Your task to perform on an android device: Is it going to rain tomorrow? Image 0: 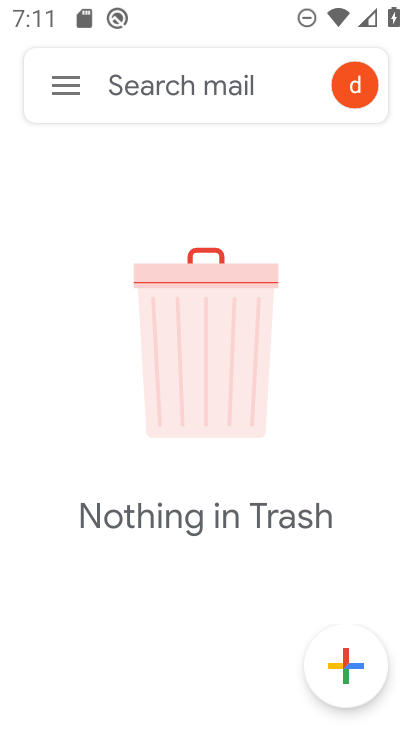
Step 0: press home button
Your task to perform on an android device: Is it going to rain tomorrow? Image 1: 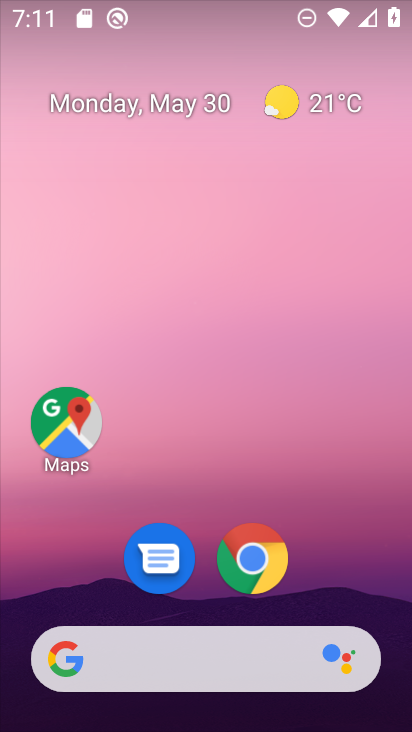
Step 1: click (222, 664)
Your task to perform on an android device: Is it going to rain tomorrow? Image 2: 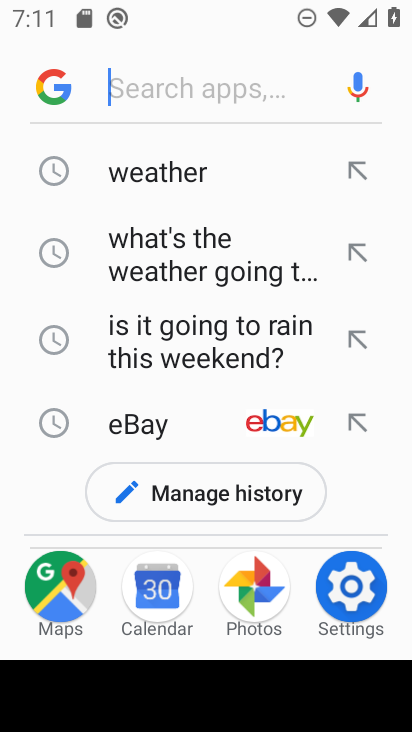
Step 2: click (148, 171)
Your task to perform on an android device: Is it going to rain tomorrow? Image 3: 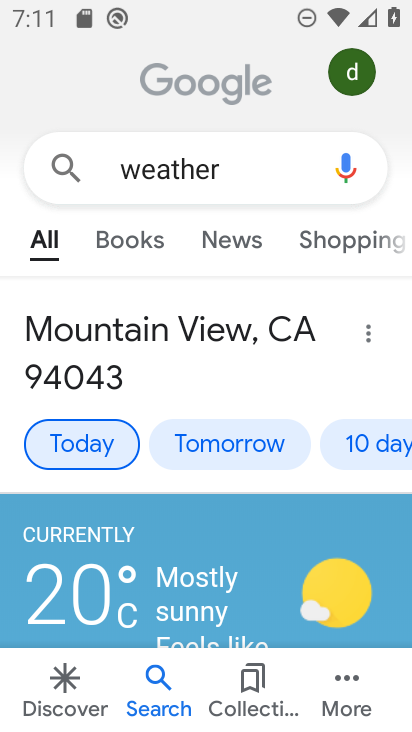
Step 3: click (234, 441)
Your task to perform on an android device: Is it going to rain tomorrow? Image 4: 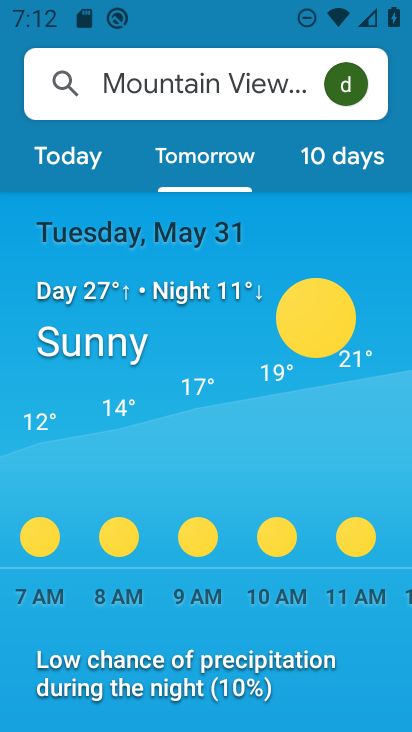
Step 4: task complete